Your task to perform on an android device: manage bookmarks in the chrome app Image 0: 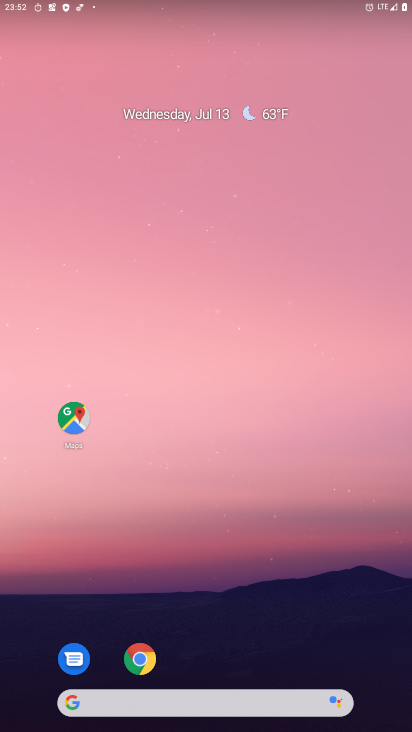
Step 0: drag from (248, 535) to (235, 93)
Your task to perform on an android device: manage bookmarks in the chrome app Image 1: 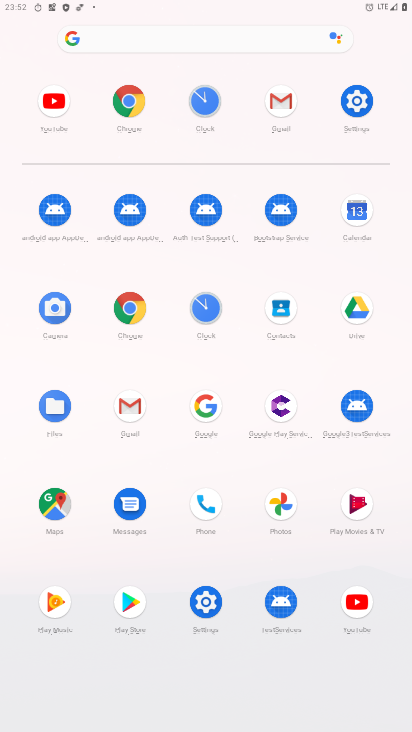
Step 1: click (132, 302)
Your task to perform on an android device: manage bookmarks in the chrome app Image 2: 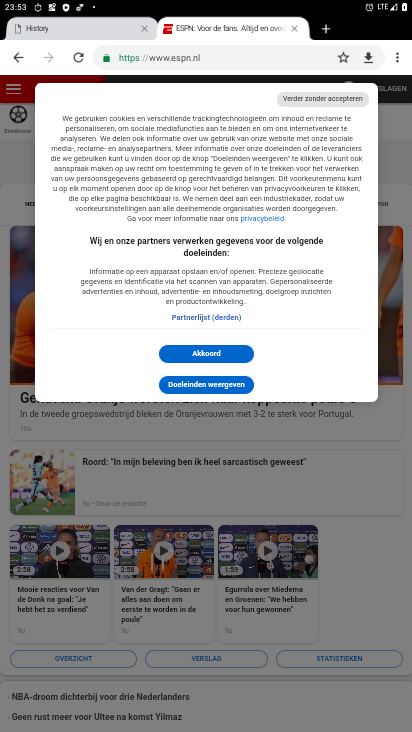
Step 2: task complete